Your task to perform on an android device: all mails in gmail Image 0: 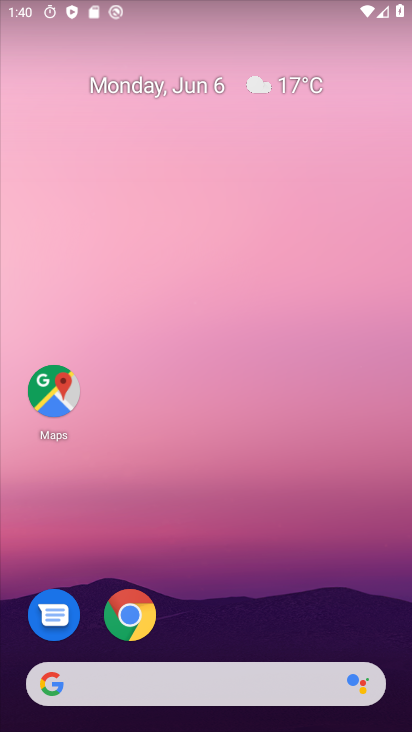
Step 0: click (246, 227)
Your task to perform on an android device: all mails in gmail Image 1: 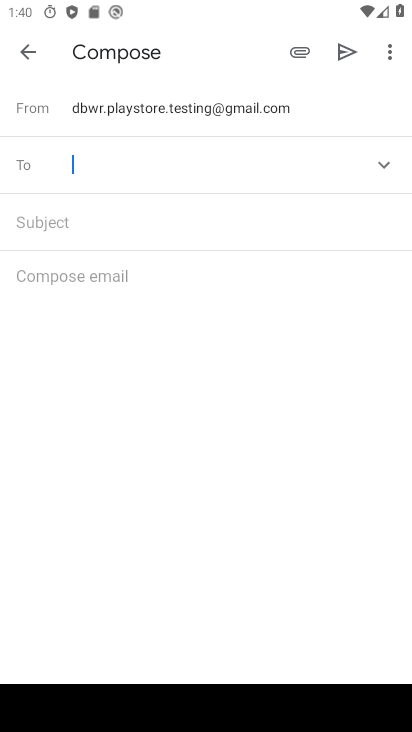
Step 1: press home button
Your task to perform on an android device: all mails in gmail Image 2: 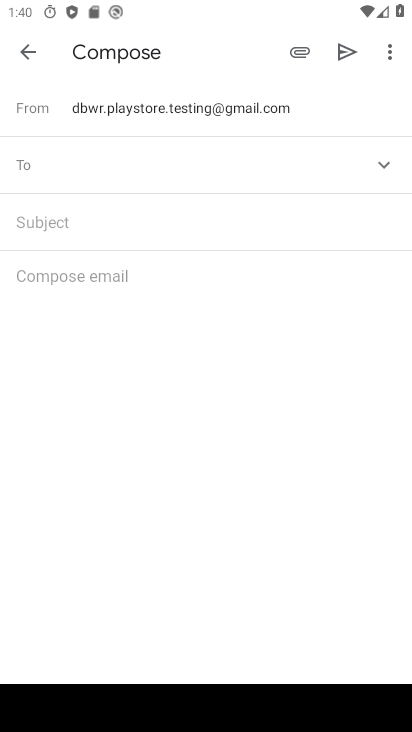
Step 2: press home button
Your task to perform on an android device: all mails in gmail Image 3: 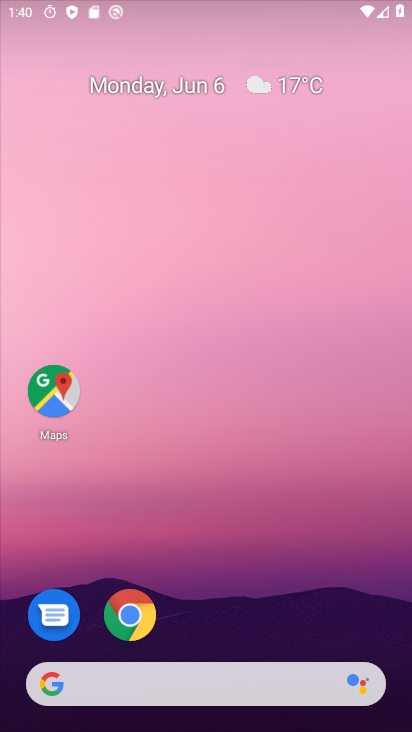
Step 3: drag from (224, 562) to (220, 456)
Your task to perform on an android device: all mails in gmail Image 4: 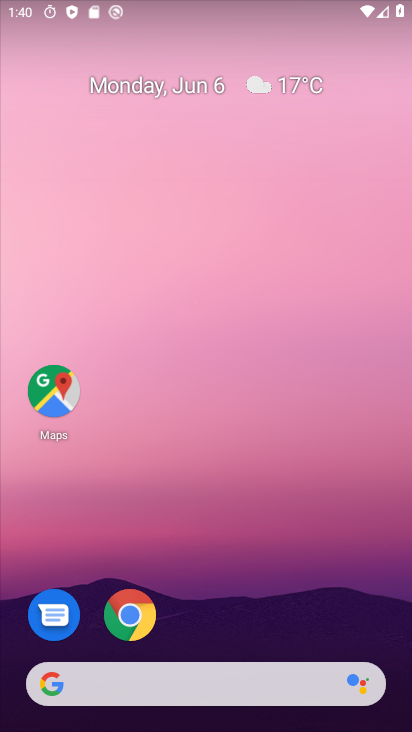
Step 4: drag from (202, 614) to (202, 179)
Your task to perform on an android device: all mails in gmail Image 5: 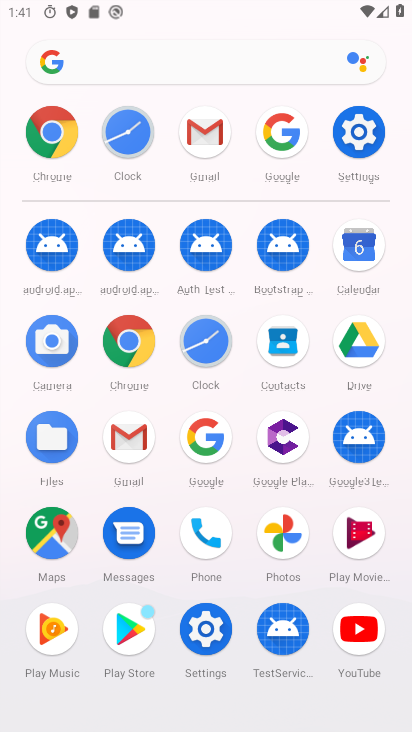
Step 5: drag from (240, 568) to (224, 210)
Your task to perform on an android device: all mails in gmail Image 6: 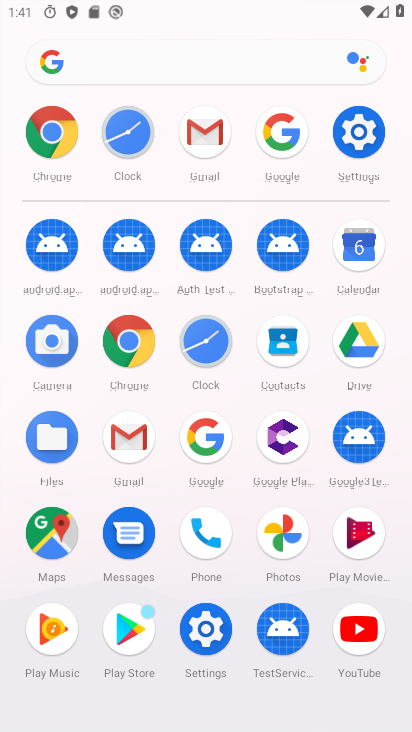
Step 6: click (127, 441)
Your task to perform on an android device: all mails in gmail Image 7: 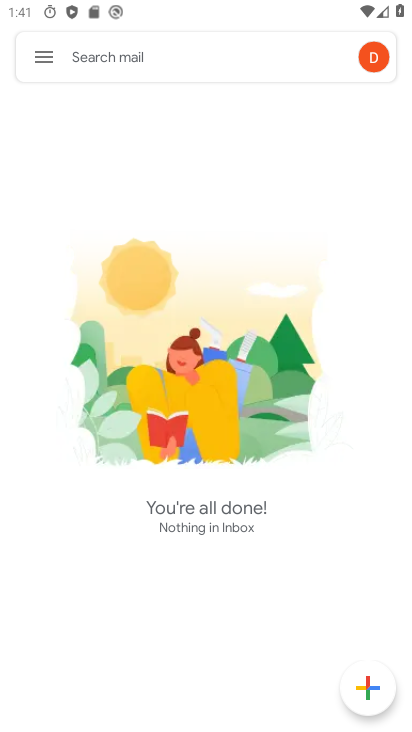
Step 7: click (17, 54)
Your task to perform on an android device: all mails in gmail Image 8: 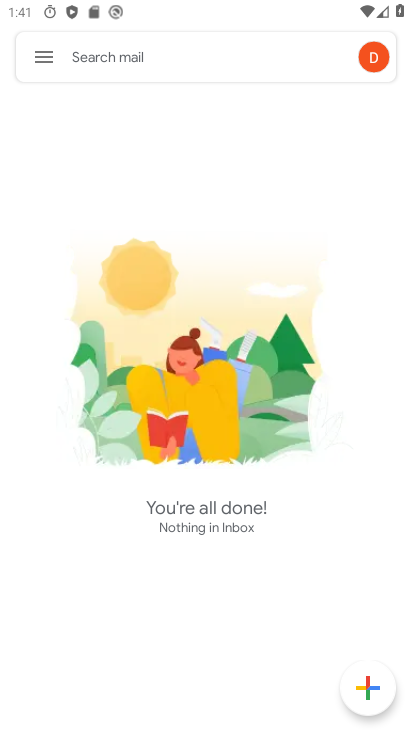
Step 8: click (39, 60)
Your task to perform on an android device: all mails in gmail Image 9: 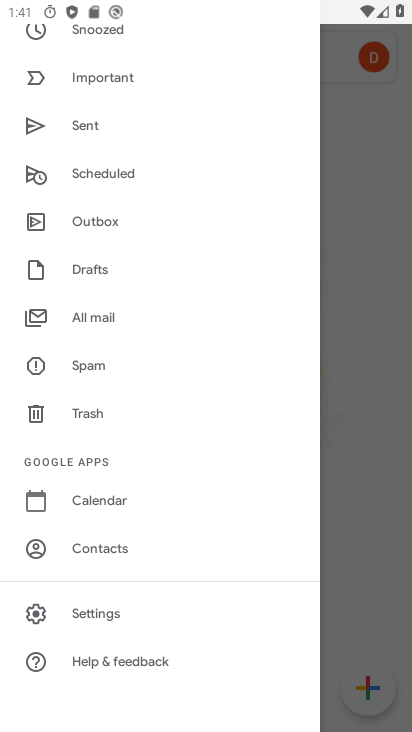
Step 9: click (112, 316)
Your task to perform on an android device: all mails in gmail Image 10: 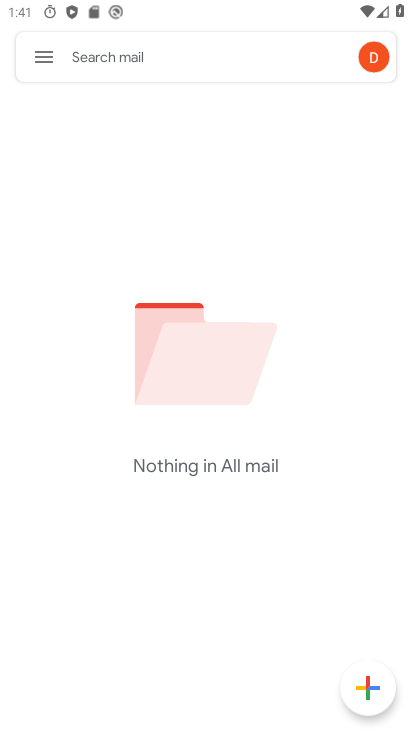
Step 10: task complete